Your task to perform on an android device: Go to display settings Image 0: 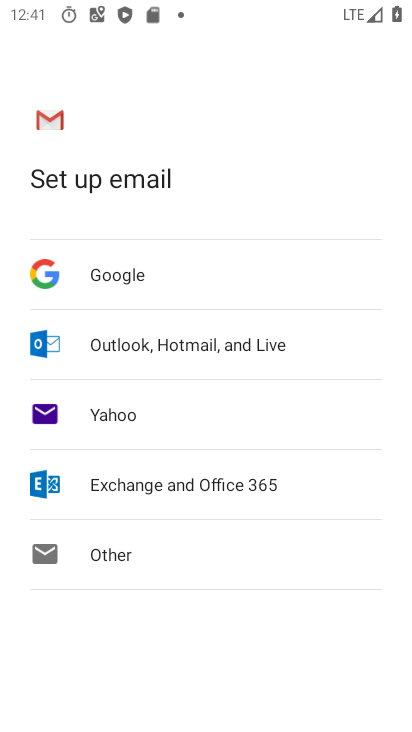
Step 0: press home button
Your task to perform on an android device: Go to display settings Image 1: 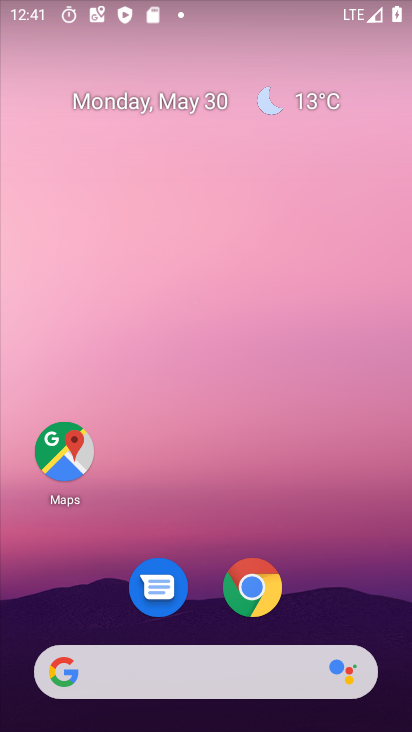
Step 1: drag from (310, 542) to (241, 179)
Your task to perform on an android device: Go to display settings Image 2: 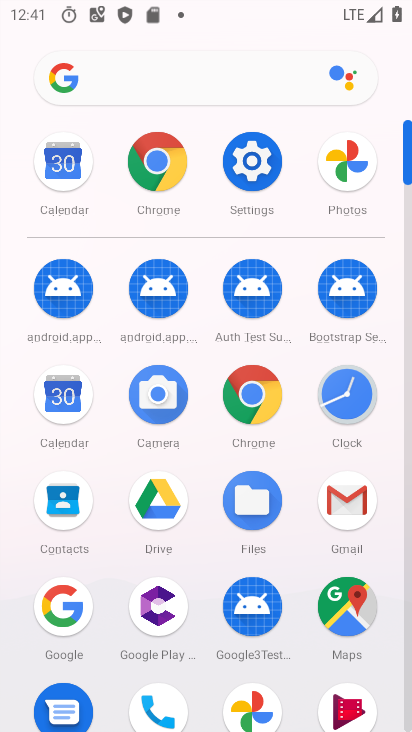
Step 2: click (245, 162)
Your task to perform on an android device: Go to display settings Image 3: 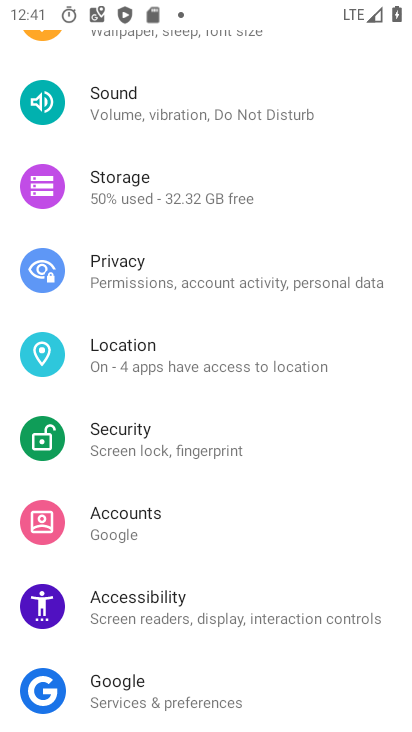
Step 3: drag from (188, 531) to (175, 214)
Your task to perform on an android device: Go to display settings Image 4: 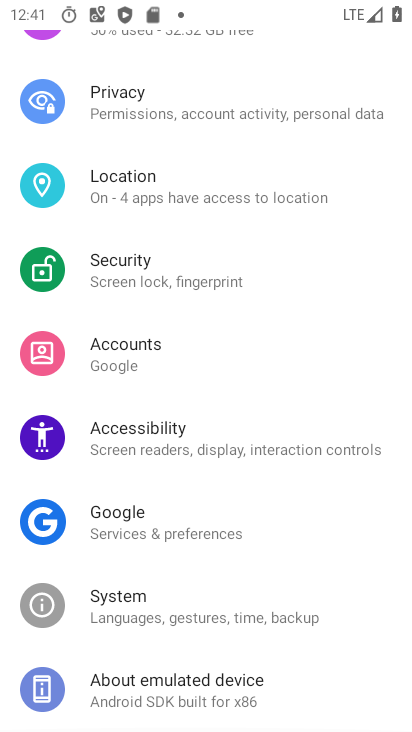
Step 4: drag from (177, 203) to (229, 729)
Your task to perform on an android device: Go to display settings Image 5: 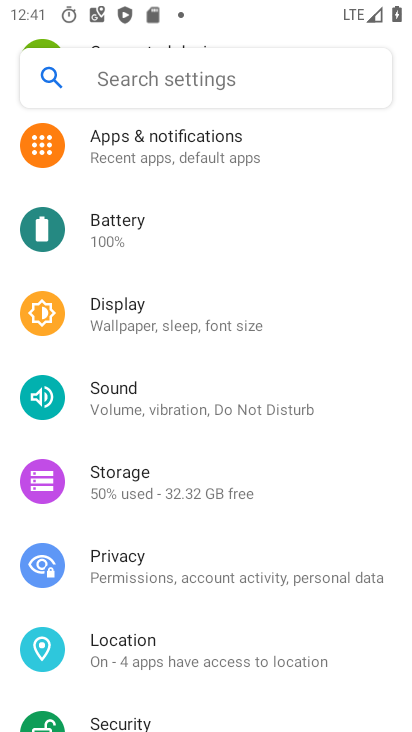
Step 5: click (188, 327)
Your task to perform on an android device: Go to display settings Image 6: 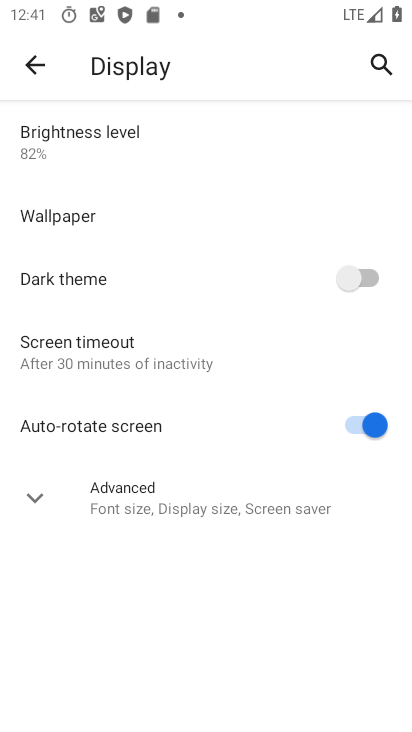
Step 6: task complete